Your task to perform on an android device: open chrome privacy settings Image 0: 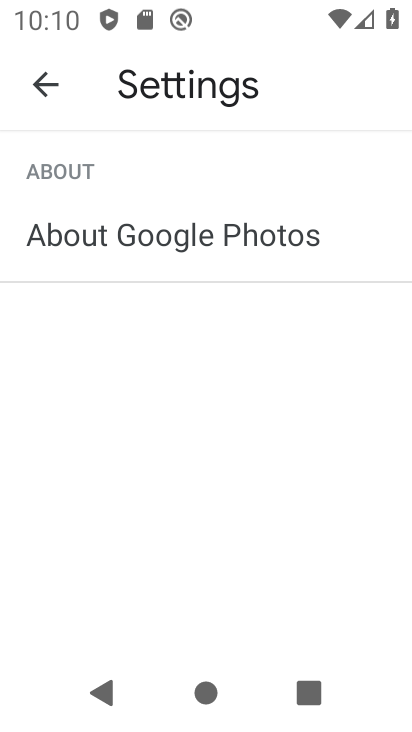
Step 0: press home button
Your task to perform on an android device: open chrome privacy settings Image 1: 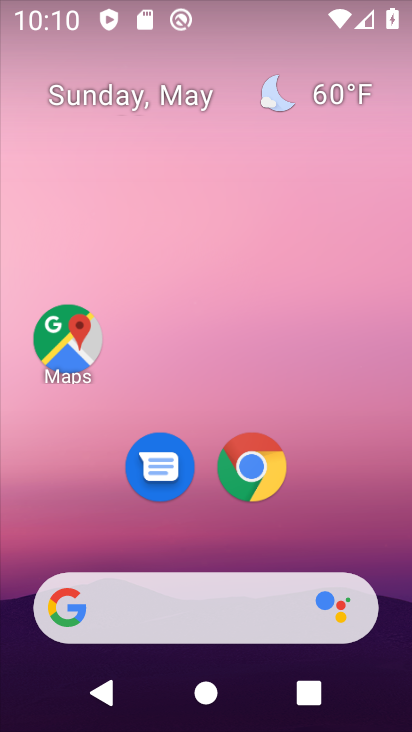
Step 1: click (234, 481)
Your task to perform on an android device: open chrome privacy settings Image 2: 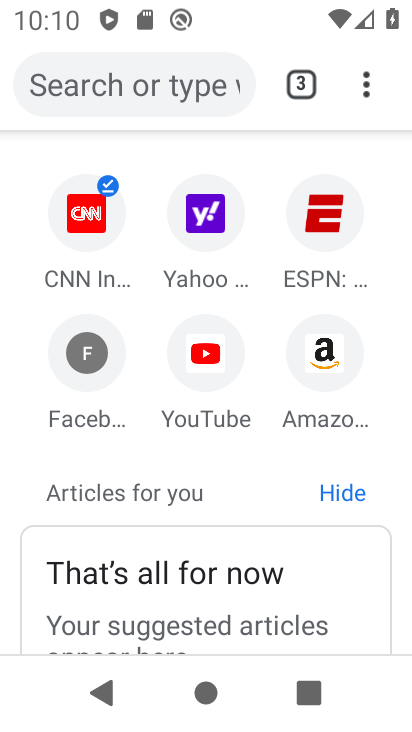
Step 2: drag from (321, 585) to (296, 248)
Your task to perform on an android device: open chrome privacy settings Image 3: 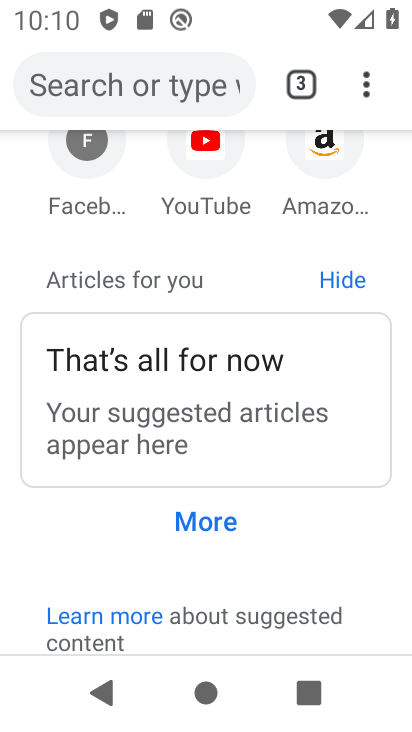
Step 3: drag from (367, 96) to (147, 508)
Your task to perform on an android device: open chrome privacy settings Image 4: 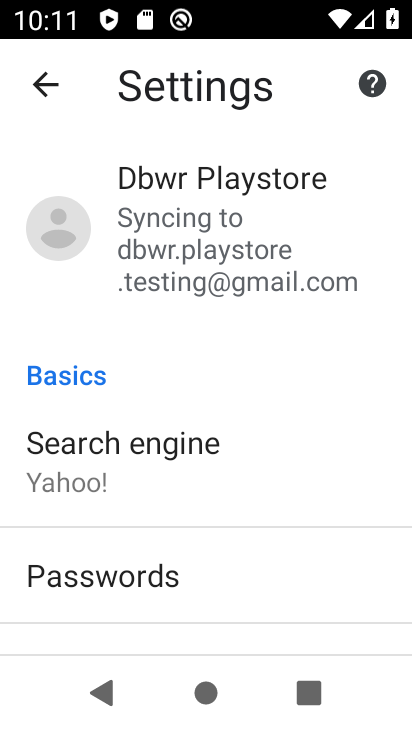
Step 4: drag from (217, 623) to (230, 262)
Your task to perform on an android device: open chrome privacy settings Image 5: 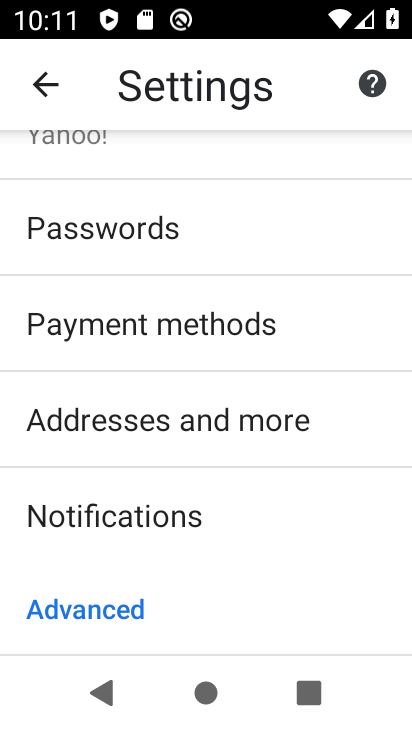
Step 5: drag from (277, 608) to (313, 186)
Your task to perform on an android device: open chrome privacy settings Image 6: 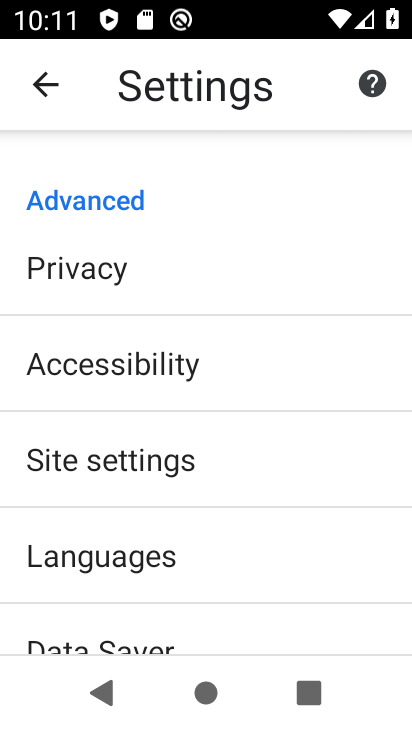
Step 6: drag from (287, 581) to (279, 199)
Your task to perform on an android device: open chrome privacy settings Image 7: 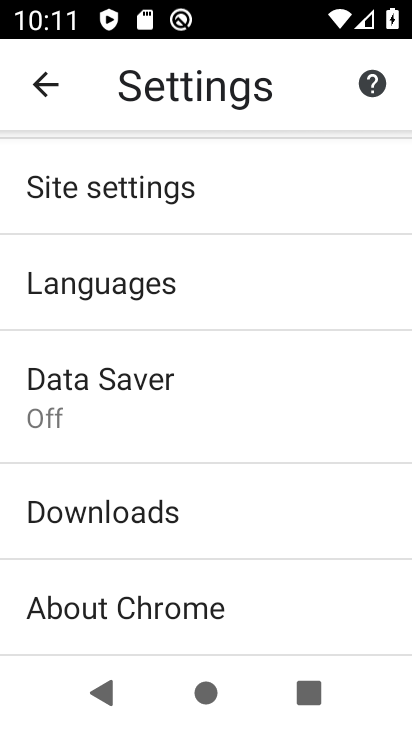
Step 7: drag from (284, 276) to (254, 576)
Your task to perform on an android device: open chrome privacy settings Image 8: 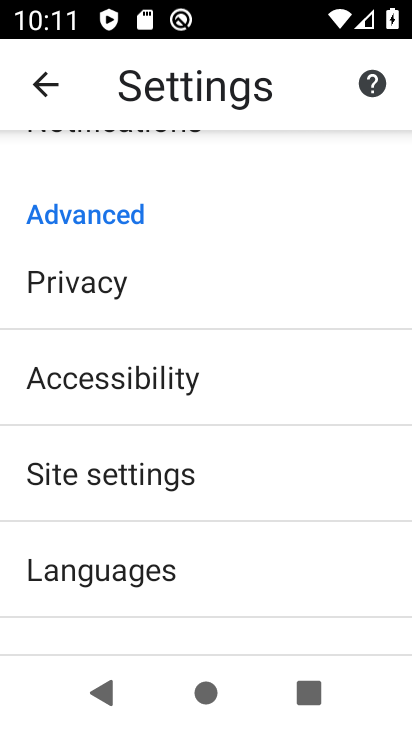
Step 8: drag from (240, 587) to (240, 498)
Your task to perform on an android device: open chrome privacy settings Image 9: 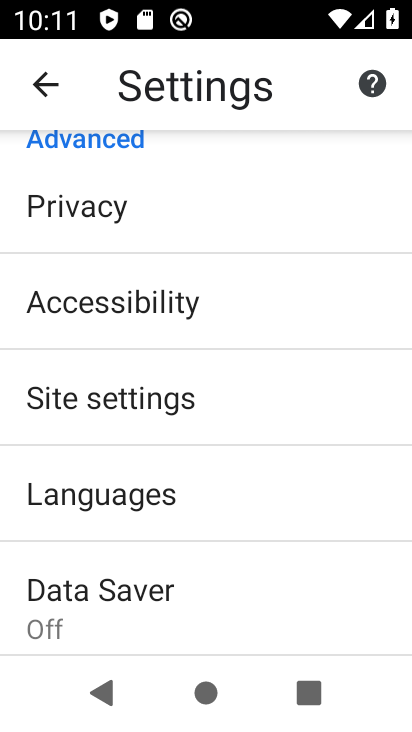
Step 9: click (96, 194)
Your task to perform on an android device: open chrome privacy settings Image 10: 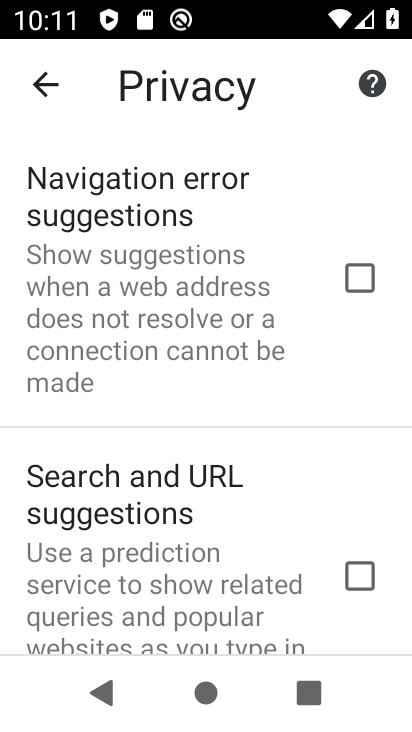
Step 10: task complete